Your task to perform on an android device: Go to Reddit.com Image 0: 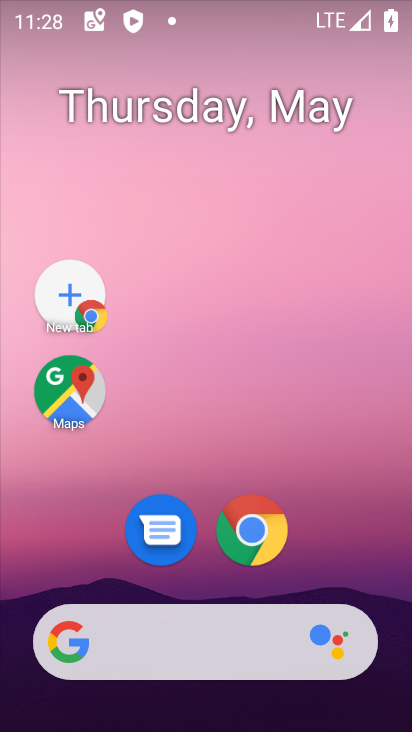
Step 0: click (139, 173)
Your task to perform on an android device: Go to Reddit.com Image 1: 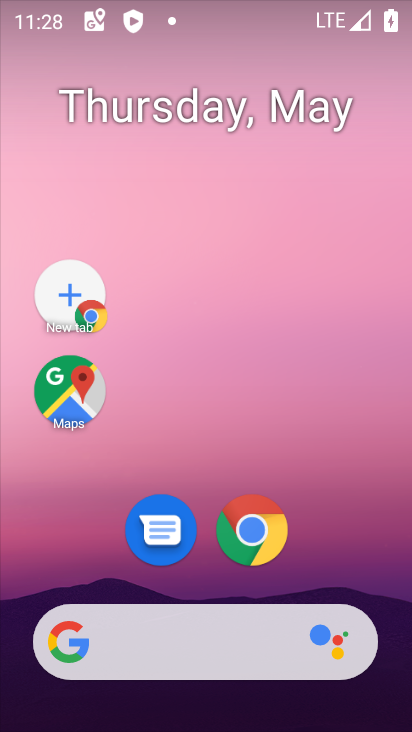
Step 1: drag from (286, 429) to (246, 247)
Your task to perform on an android device: Go to Reddit.com Image 2: 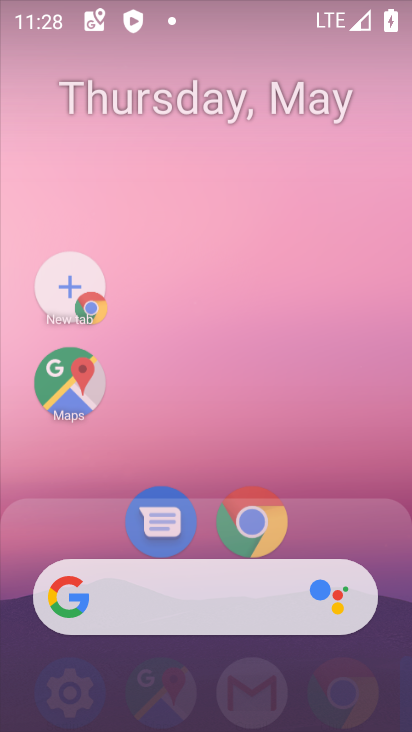
Step 2: drag from (335, 473) to (202, 236)
Your task to perform on an android device: Go to Reddit.com Image 3: 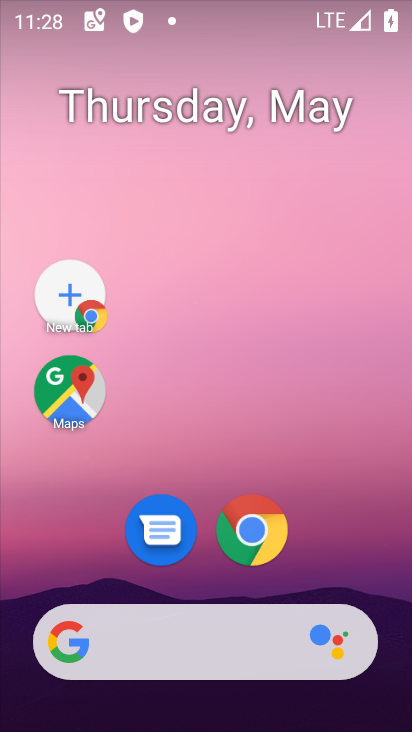
Step 3: drag from (292, 331) to (200, 60)
Your task to perform on an android device: Go to Reddit.com Image 4: 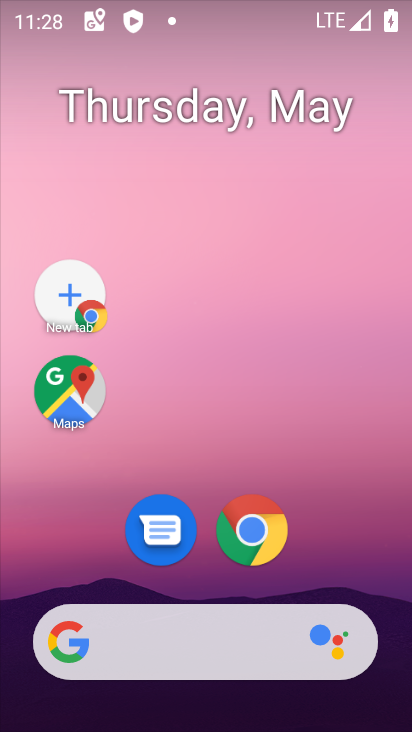
Step 4: drag from (320, 562) to (125, 165)
Your task to perform on an android device: Go to Reddit.com Image 5: 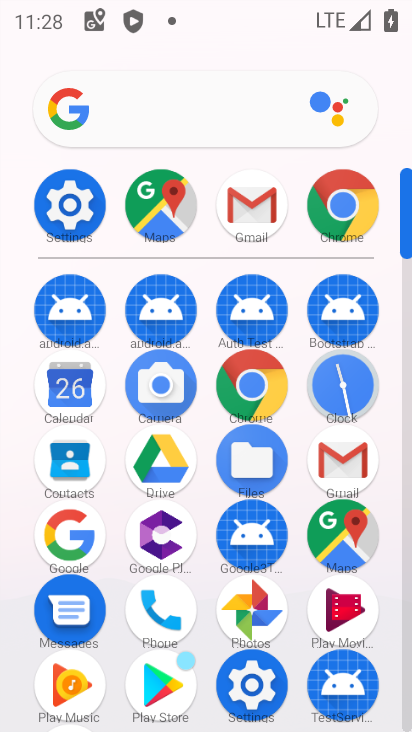
Step 5: drag from (267, 346) to (188, 177)
Your task to perform on an android device: Go to Reddit.com Image 6: 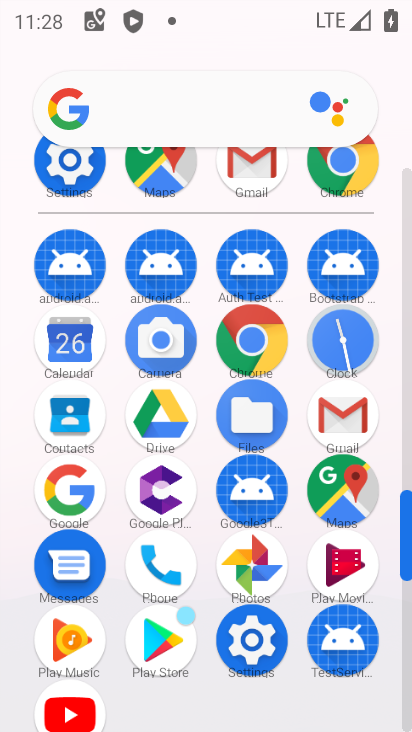
Step 6: click (257, 338)
Your task to perform on an android device: Go to Reddit.com Image 7: 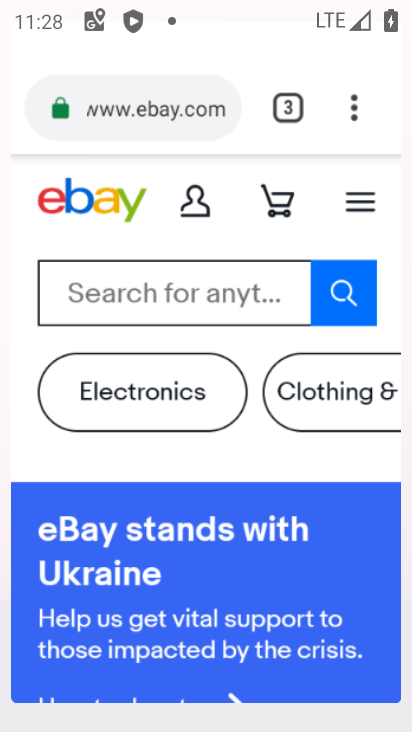
Step 7: click (257, 338)
Your task to perform on an android device: Go to Reddit.com Image 8: 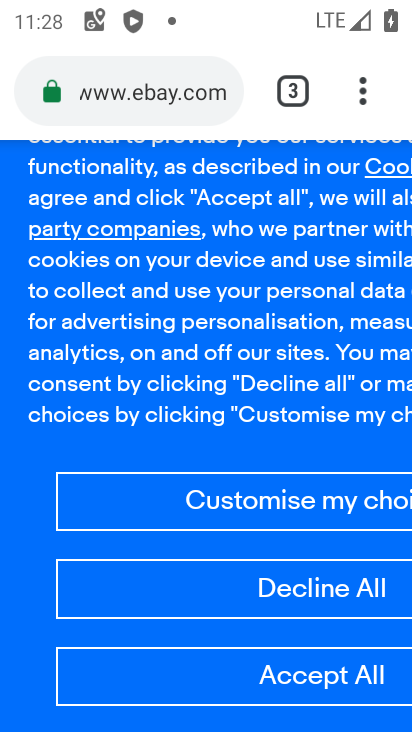
Step 8: click (359, 92)
Your task to perform on an android device: Go to Reddit.com Image 9: 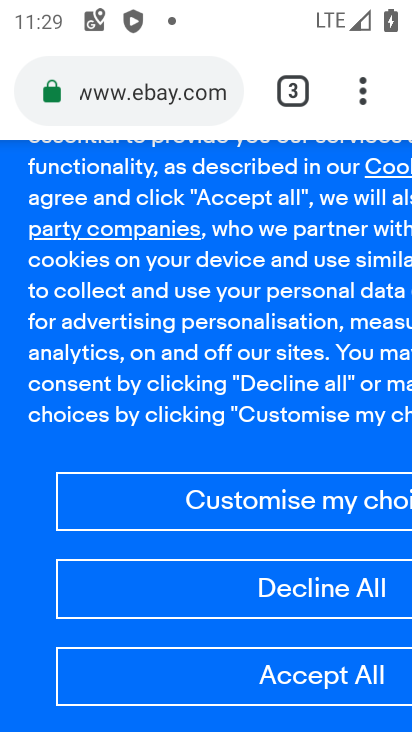
Step 9: click (360, 92)
Your task to perform on an android device: Go to Reddit.com Image 10: 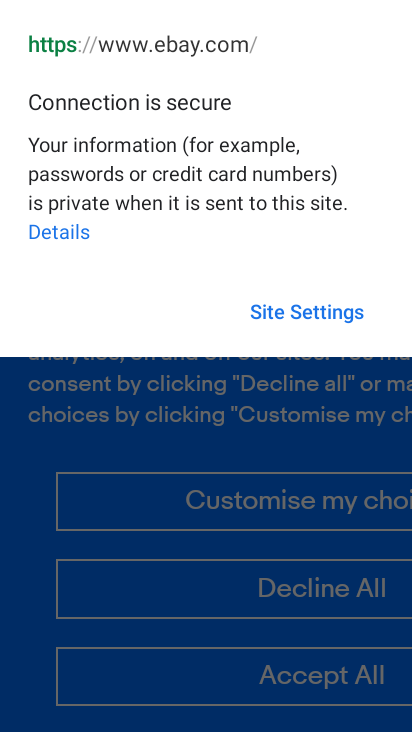
Step 10: click (61, 418)
Your task to perform on an android device: Go to Reddit.com Image 11: 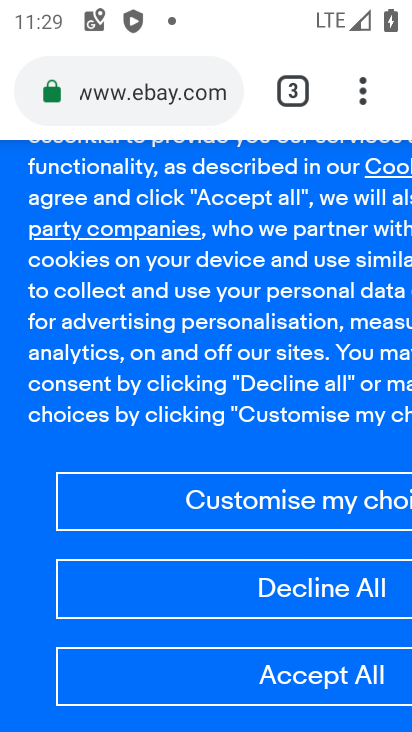
Step 11: click (363, 90)
Your task to perform on an android device: Go to Reddit.com Image 12: 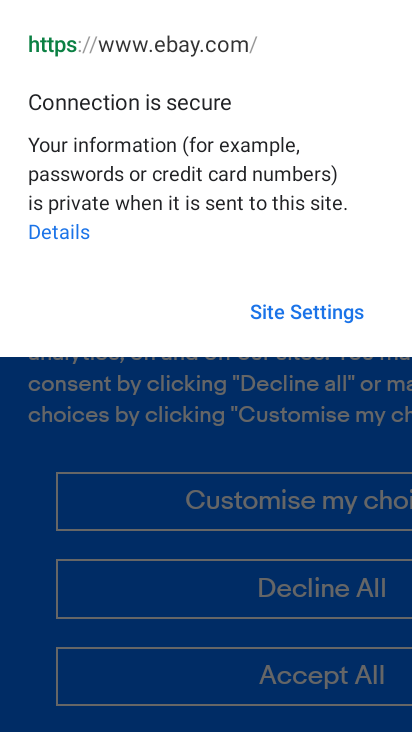
Step 12: click (178, 420)
Your task to perform on an android device: Go to Reddit.com Image 13: 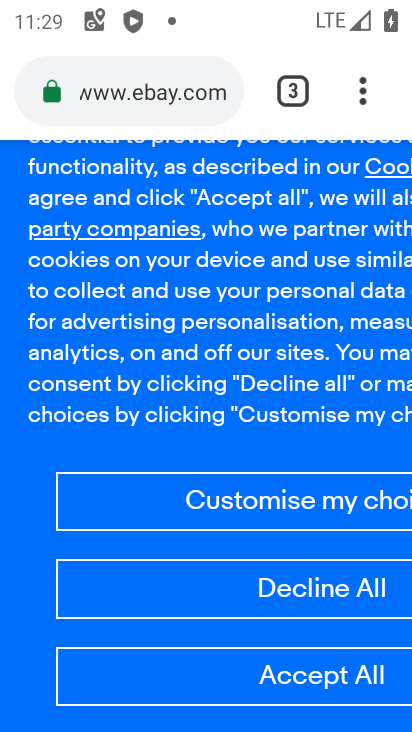
Step 13: drag from (360, 97) to (66, 189)
Your task to perform on an android device: Go to Reddit.com Image 14: 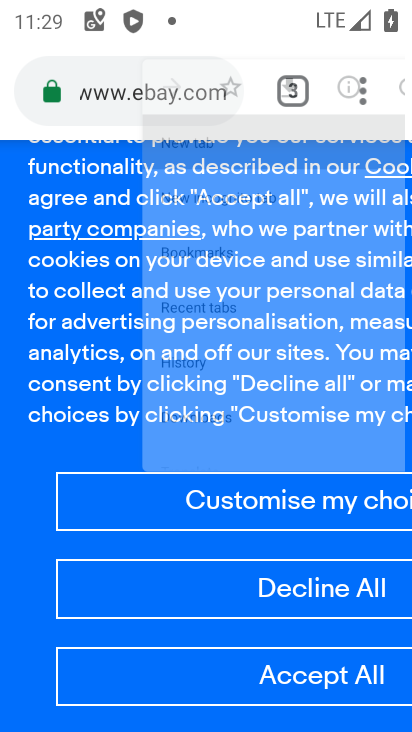
Step 14: click (67, 187)
Your task to perform on an android device: Go to Reddit.com Image 15: 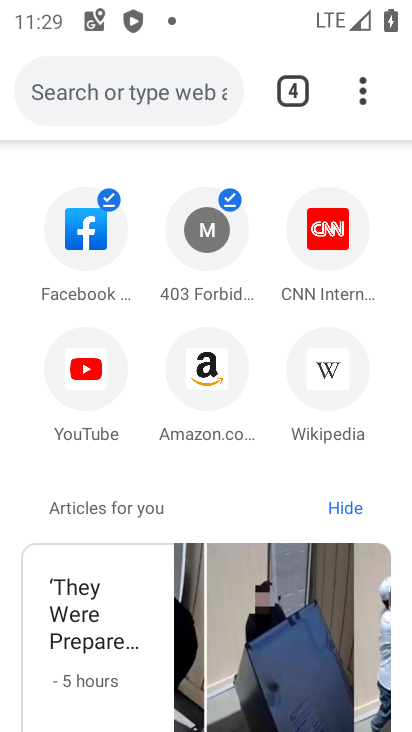
Step 15: click (66, 92)
Your task to perform on an android device: Go to Reddit.com Image 16: 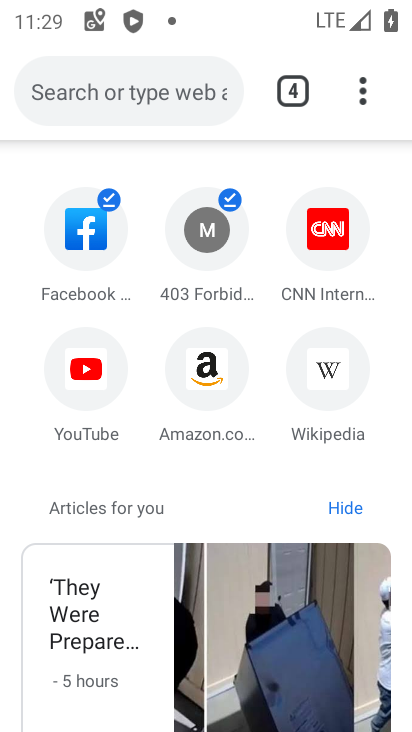
Step 16: click (67, 93)
Your task to perform on an android device: Go to Reddit.com Image 17: 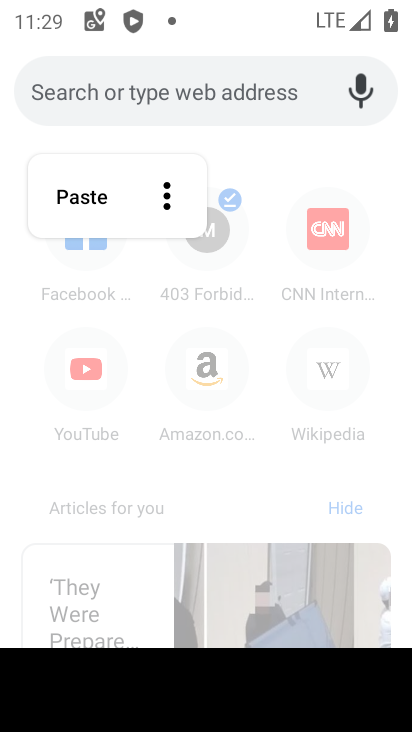
Step 17: type "reddit.com"
Your task to perform on an android device: Go to Reddit.com Image 18: 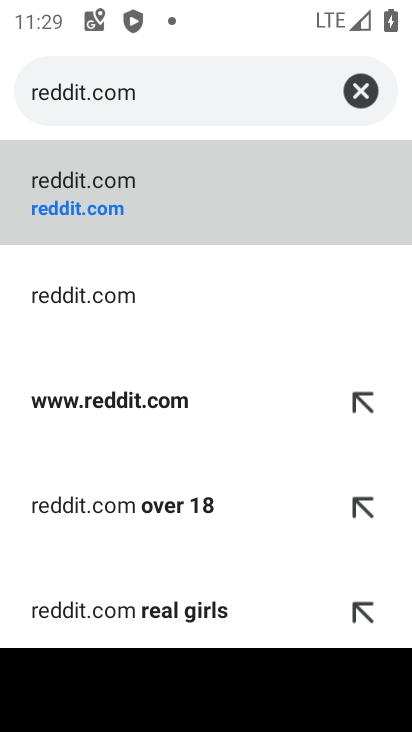
Step 18: click (100, 214)
Your task to perform on an android device: Go to Reddit.com Image 19: 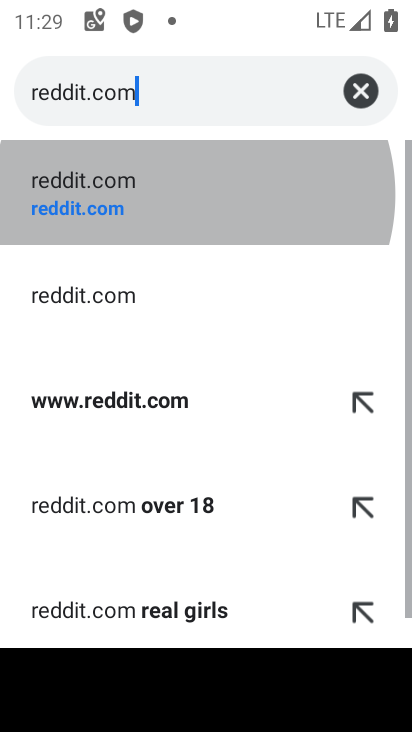
Step 19: click (100, 214)
Your task to perform on an android device: Go to Reddit.com Image 20: 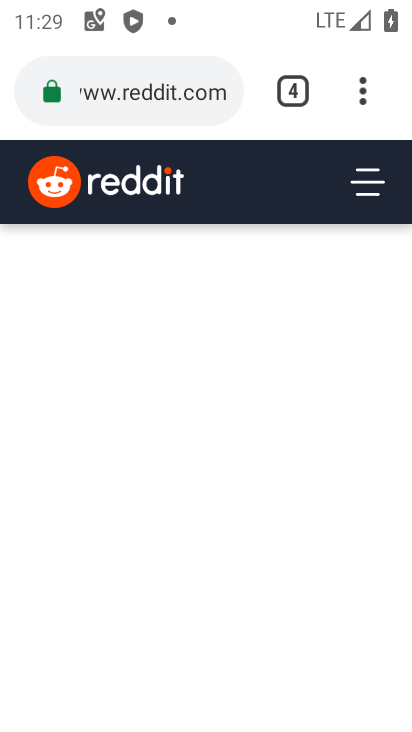
Step 20: task complete